Your task to perform on an android device: Open Google Chrome and click the shortcut for Amazon.com Image 0: 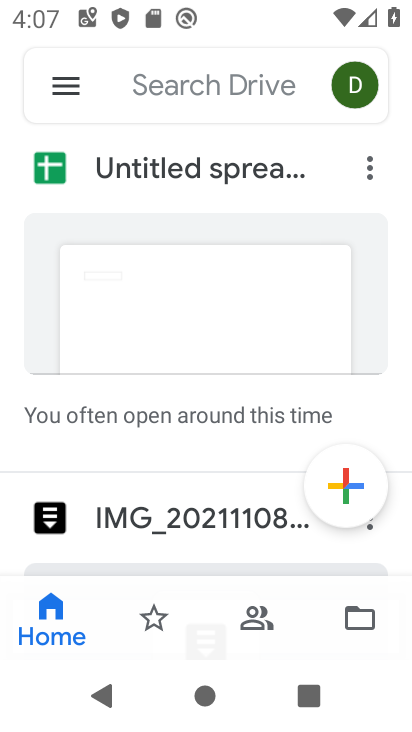
Step 0: press home button
Your task to perform on an android device: Open Google Chrome and click the shortcut for Amazon.com Image 1: 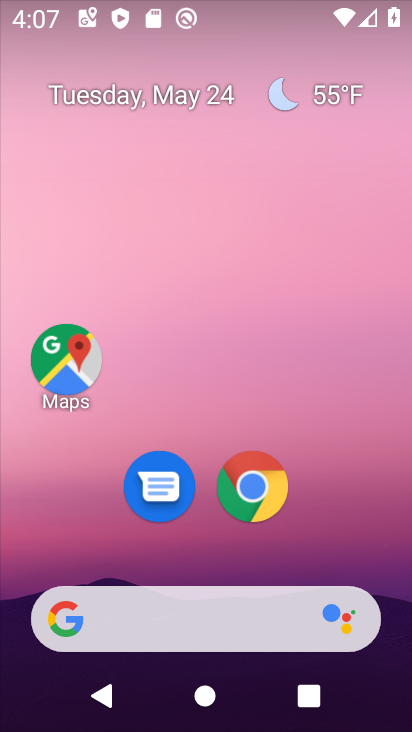
Step 1: click (228, 475)
Your task to perform on an android device: Open Google Chrome and click the shortcut for Amazon.com Image 2: 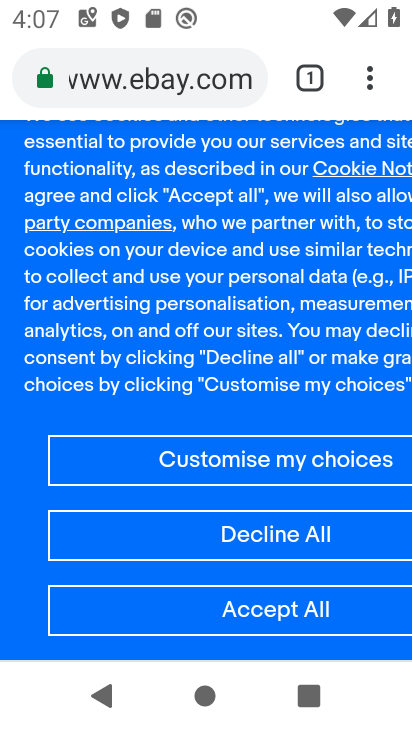
Step 2: click (314, 83)
Your task to perform on an android device: Open Google Chrome and click the shortcut for Amazon.com Image 3: 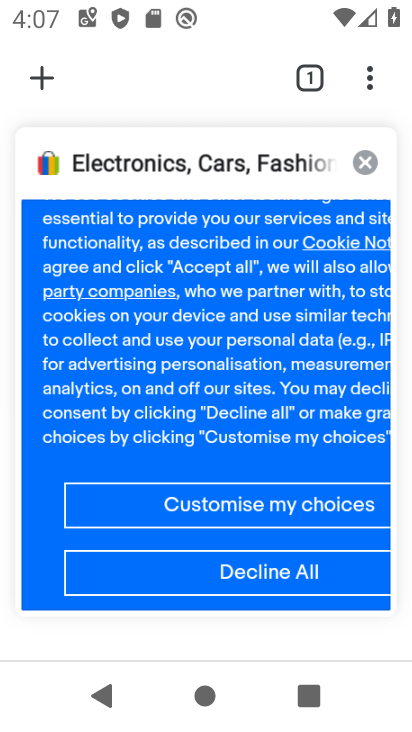
Step 3: click (50, 81)
Your task to perform on an android device: Open Google Chrome and click the shortcut for Amazon.com Image 4: 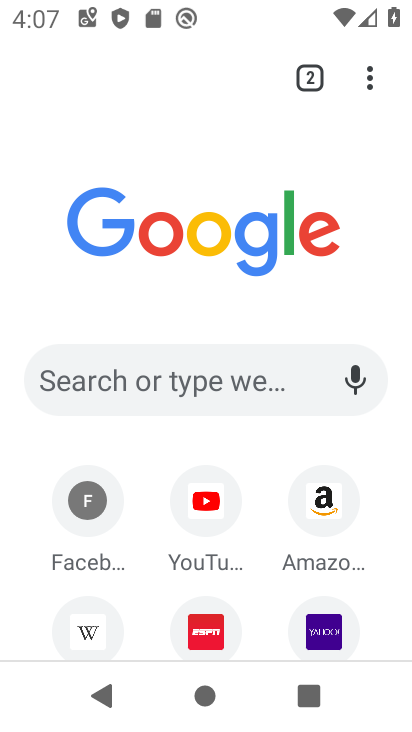
Step 4: click (330, 517)
Your task to perform on an android device: Open Google Chrome and click the shortcut for Amazon.com Image 5: 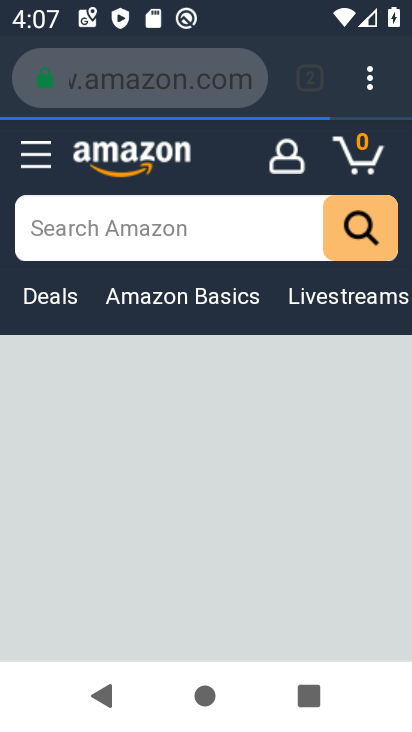
Step 5: task complete